Your task to perform on an android device: read, delete, or share a saved page in the chrome app Image 0: 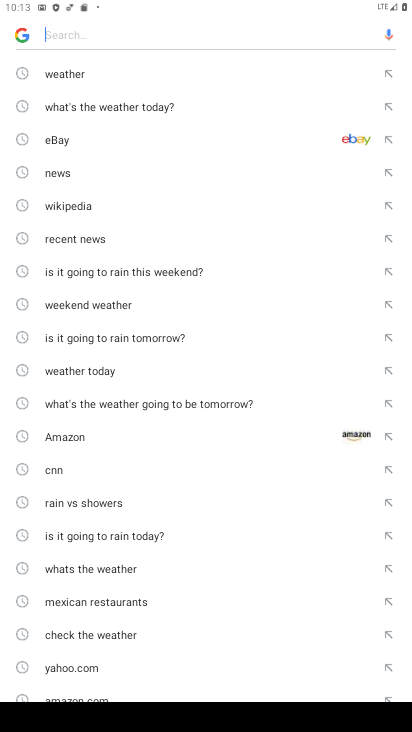
Step 0: task complete